Your task to perform on an android device: delete a single message in the gmail app Image 0: 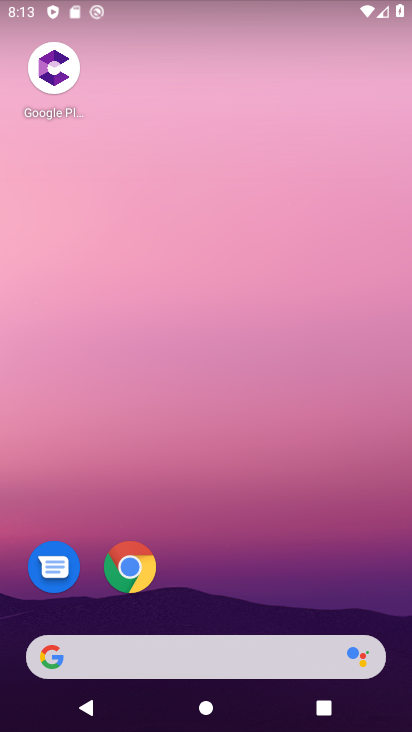
Step 0: drag from (195, 527) to (261, 14)
Your task to perform on an android device: delete a single message in the gmail app Image 1: 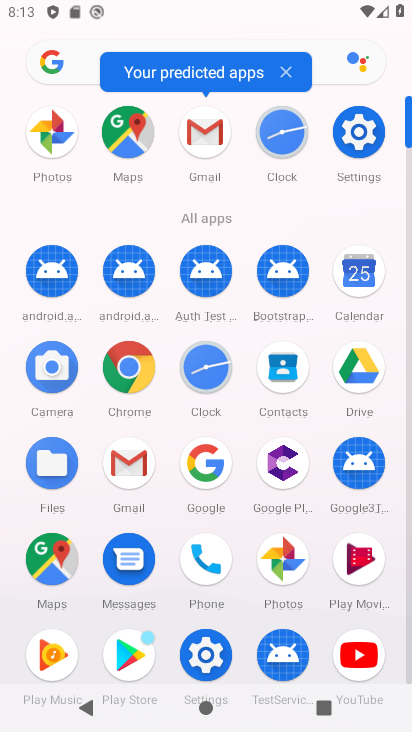
Step 1: click (191, 138)
Your task to perform on an android device: delete a single message in the gmail app Image 2: 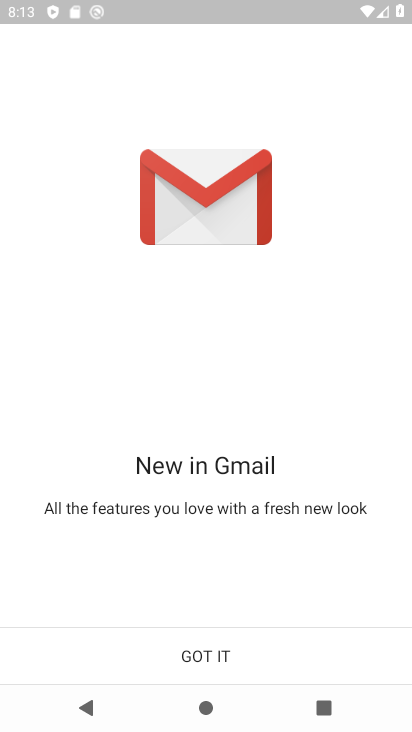
Step 2: click (257, 642)
Your task to perform on an android device: delete a single message in the gmail app Image 3: 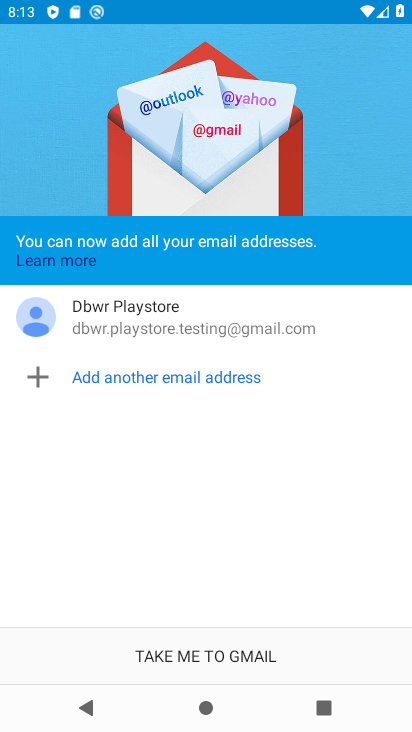
Step 3: click (257, 642)
Your task to perform on an android device: delete a single message in the gmail app Image 4: 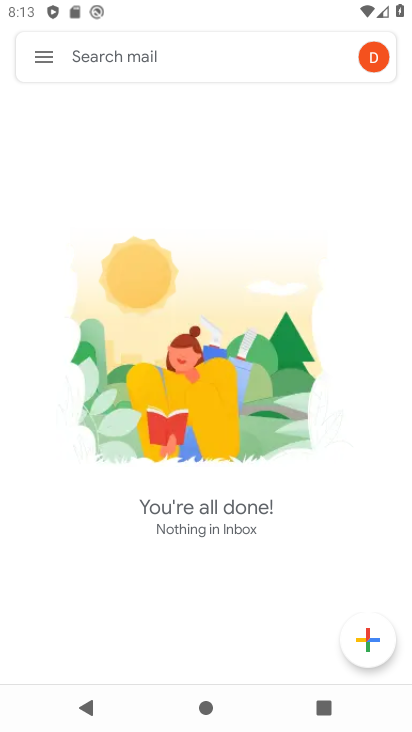
Step 4: click (44, 60)
Your task to perform on an android device: delete a single message in the gmail app Image 5: 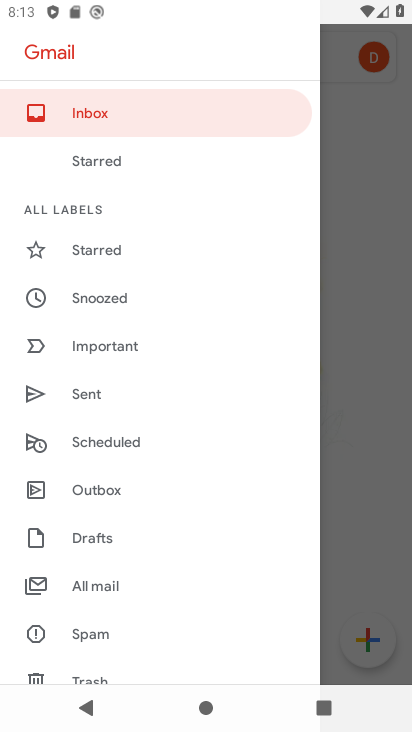
Step 5: click (91, 577)
Your task to perform on an android device: delete a single message in the gmail app Image 6: 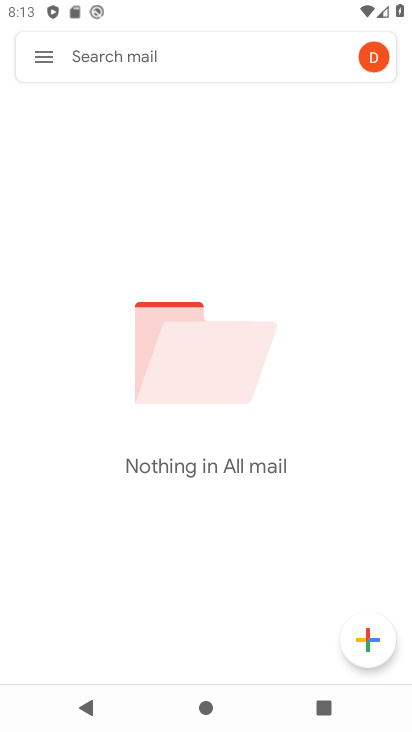
Step 6: task complete